Your task to perform on an android device: toggle notification dots Image 0: 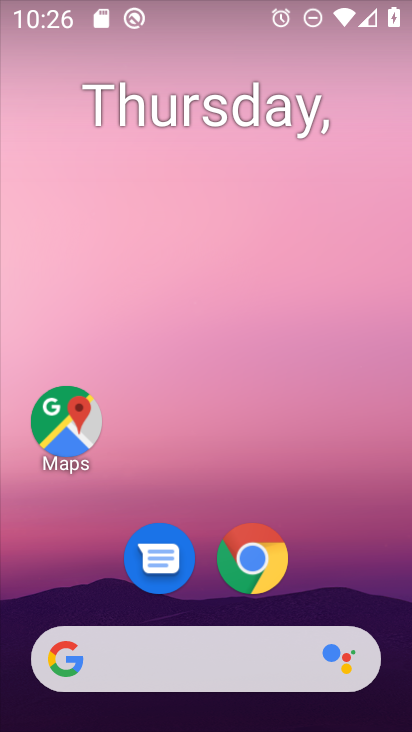
Step 0: drag from (367, 600) to (352, 40)
Your task to perform on an android device: toggle notification dots Image 1: 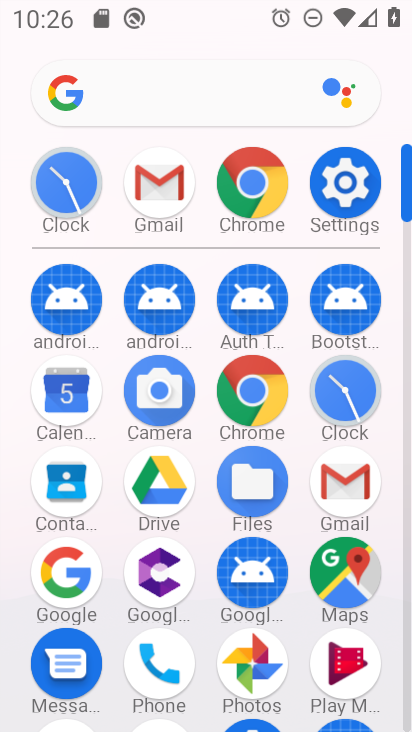
Step 1: click (404, 711)
Your task to perform on an android device: toggle notification dots Image 2: 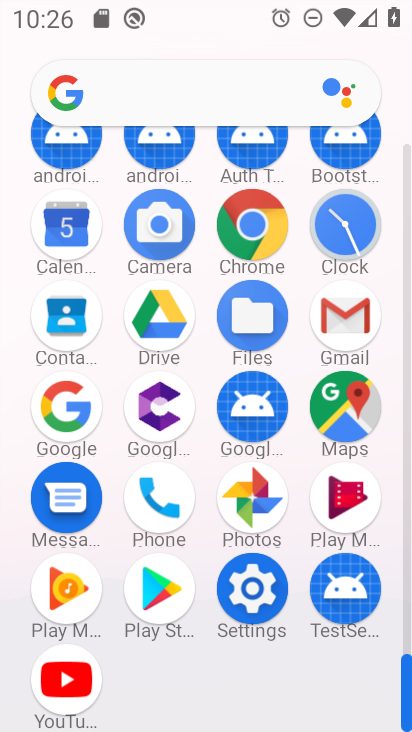
Step 2: click (242, 605)
Your task to perform on an android device: toggle notification dots Image 3: 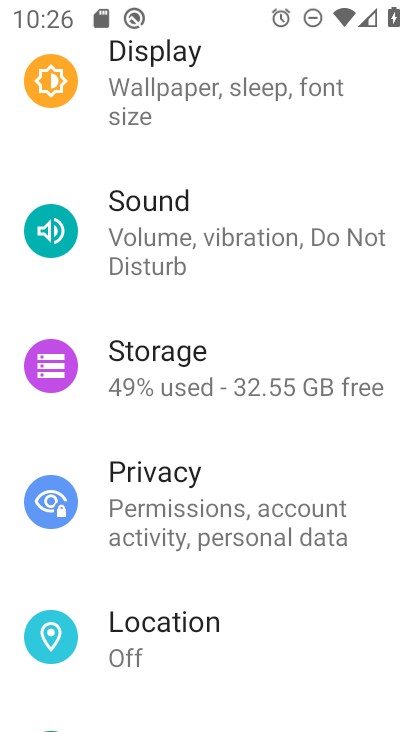
Step 3: drag from (254, 210) to (226, 592)
Your task to perform on an android device: toggle notification dots Image 4: 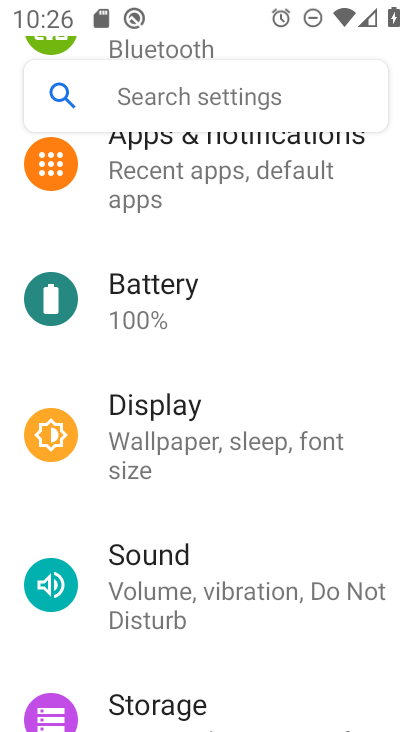
Step 4: click (219, 174)
Your task to perform on an android device: toggle notification dots Image 5: 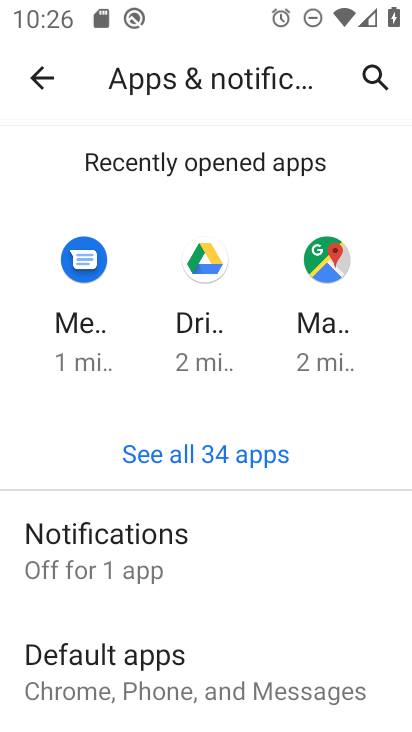
Step 5: click (127, 537)
Your task to perform on an android device: toggle notification dots Image 6: 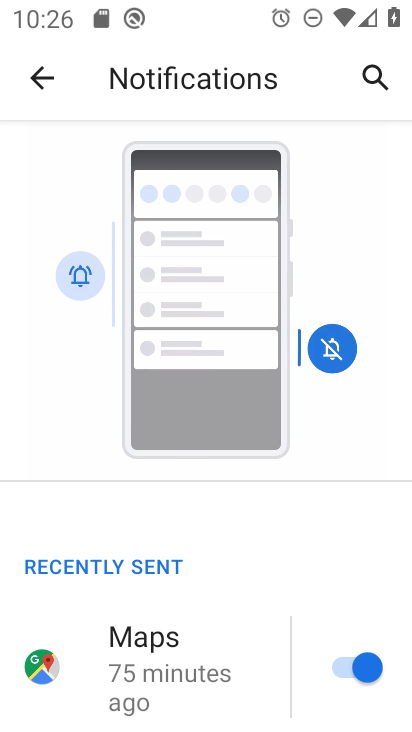
Step 6: drag from (283, 659) to (275, 160)
Your task to perform on an android device: toggle notification dots Image 7: 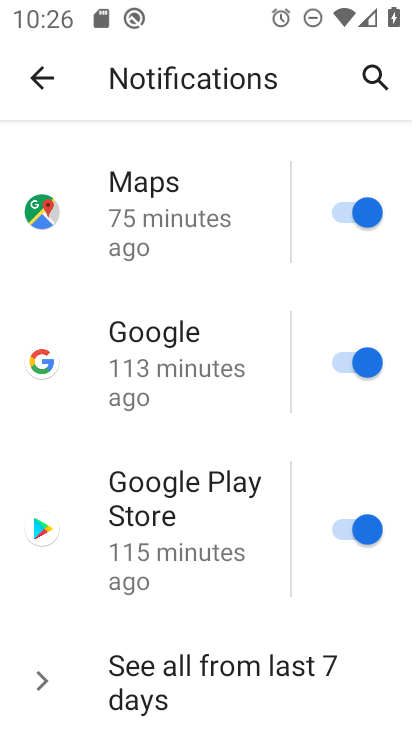
Step 7: drag from (266, 618) to (274, 119)
Your task to perform on an android device: toggle notification dots Image 8: 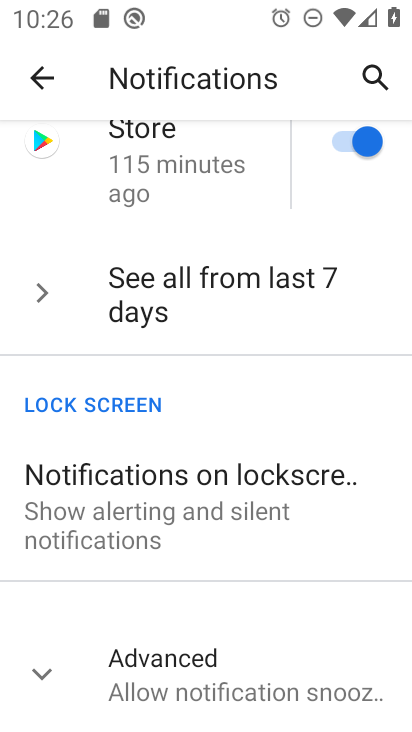
Step 8: click (37, 673)
Your task to perform on an android device: toggle notification dots Image 9: 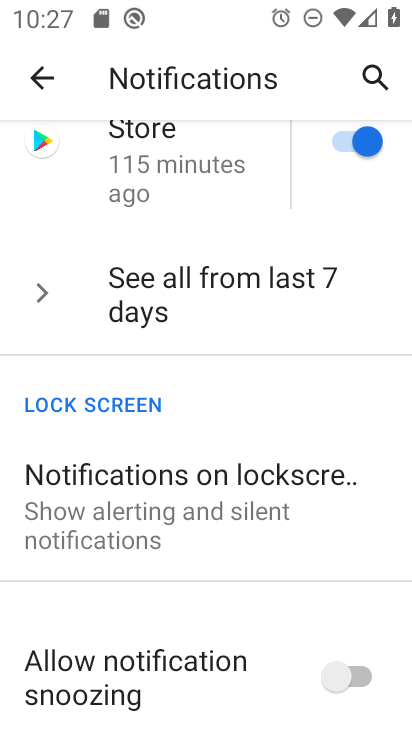
Step 9: drag from (199, 600) to (236, 113)
Your task to perform on an android device: toggle notification dots Image 10: 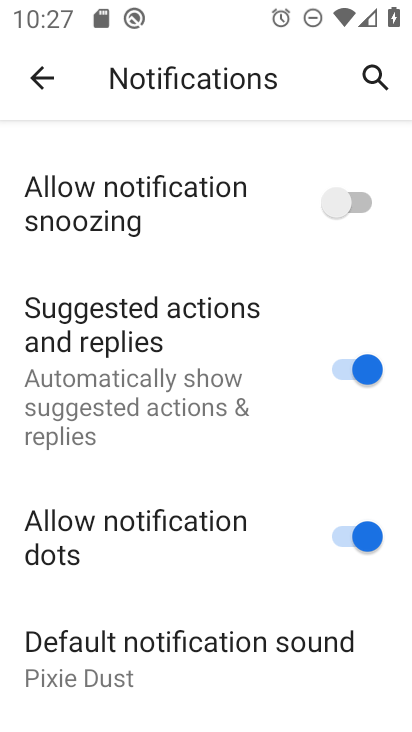
Step 10: drag from (269, 321) to (206, 629)
Your task to perform on an android device: toggle notification dots Image 11: 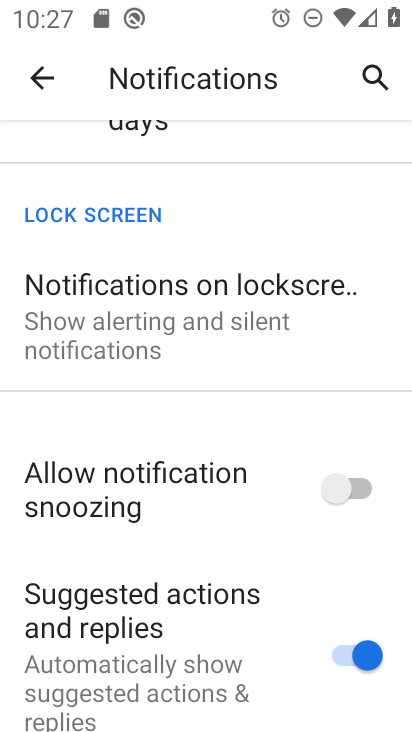
Step 11: drag from (213, 600) to (260, 119)
Your task to perform on an android device: toggle notification dots Image 12: 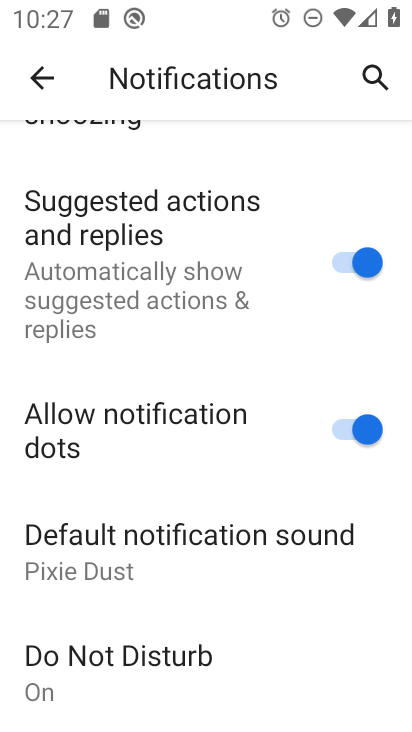
Step 12: click (345, 434)
Your task to perform on an android device: toggle notification dots Image 13: 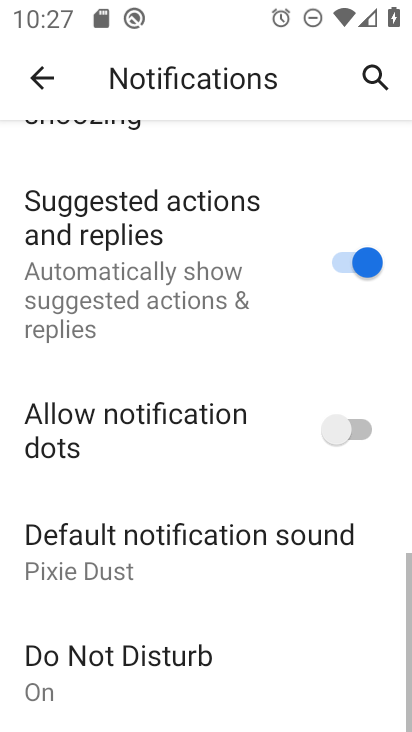
Step 13: task complete